Your task to perform on an android device: Open Maps and search for coffee Image 0: 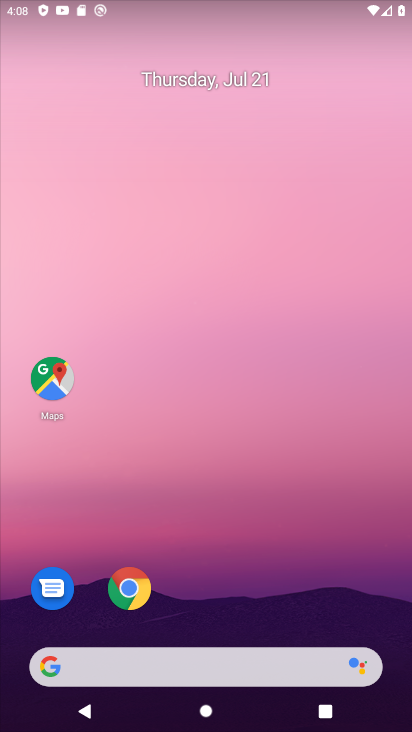
Step 0: drag from (317, 561) to (406, 0)
Your task to perform on an android device: Open Maps and search for coffee Image 1: 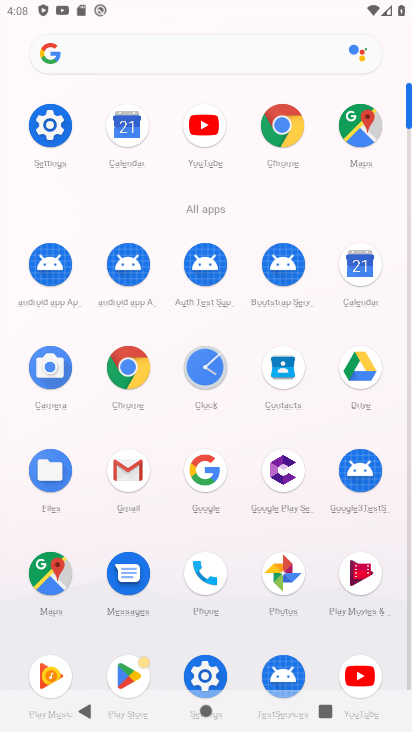
Step 1: click (268, 126)
Your task to perform on an android device: Open Maps and search for coffee Image 2: 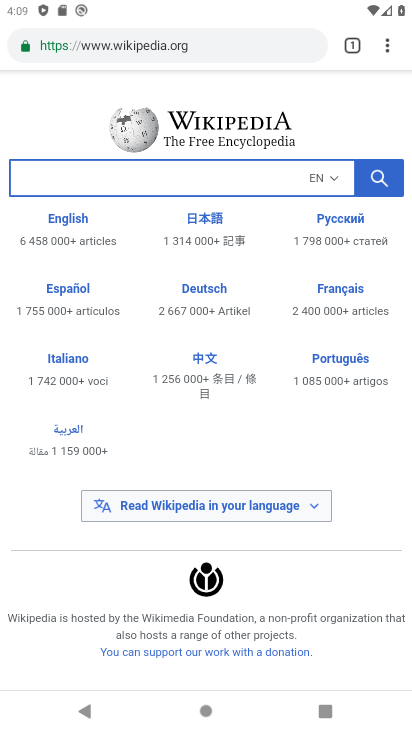
Step 2: press home button
Your task to perform on an android device: Open Maps and search for coffee Image 3: 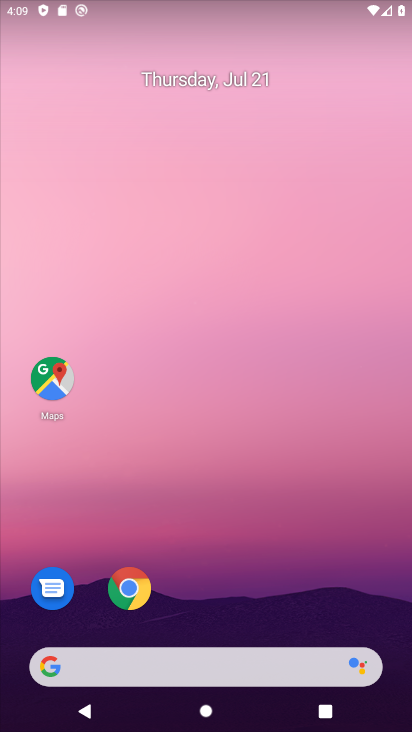
Step 3: drag from (342, 560) to (224, 120)
Your task to perform on an android device: Open Maps and search for coffee Image 4: 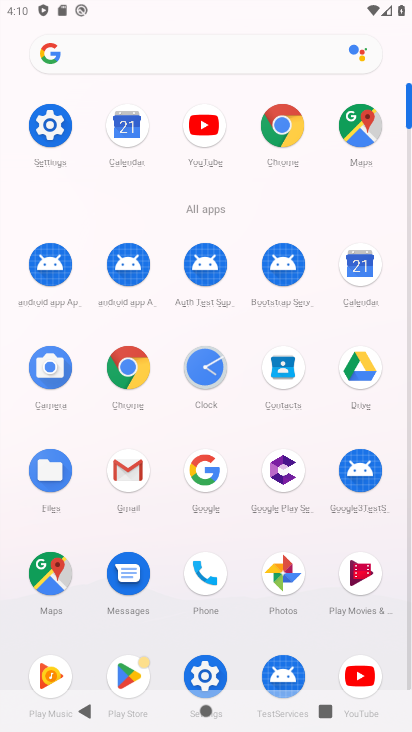
Step 4: click (40, 551)
Your task to perform on an android device: Open Maps and search for coffee Image 5: 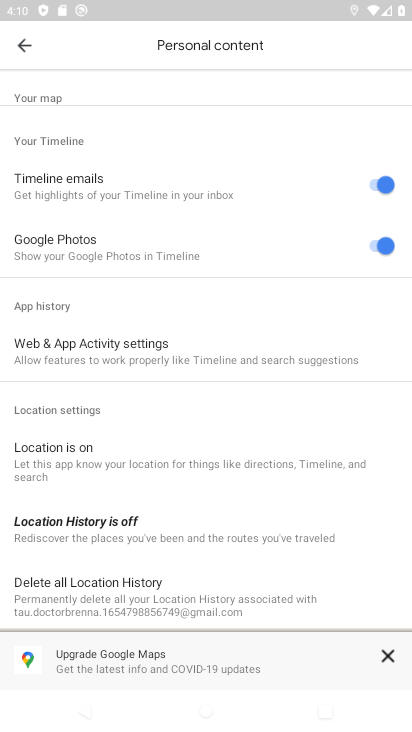
Step 5: click (15, 45)
Your task to perform on an android device: Open Maps and search for coffee Image 6: 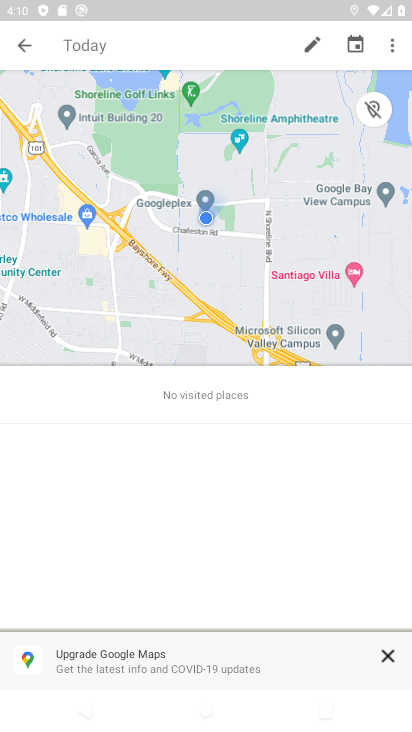
Step 6: click (17, 39)
Your task to perform on an android device: Open Maps and search for coffee Image 7: 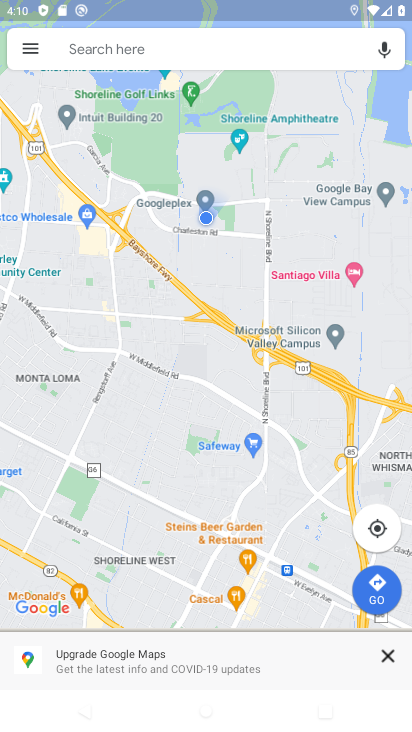
Step 7: click (93, 50)
Your task to perform on an android device: Open Maps and search for coffee Image 8: 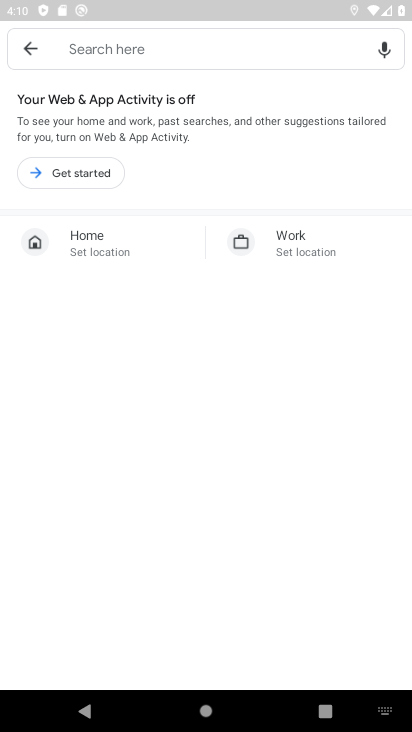
Step 8: type "coffee"
Your task to perform on an android device: Open Maps and search for coffee Image 9: 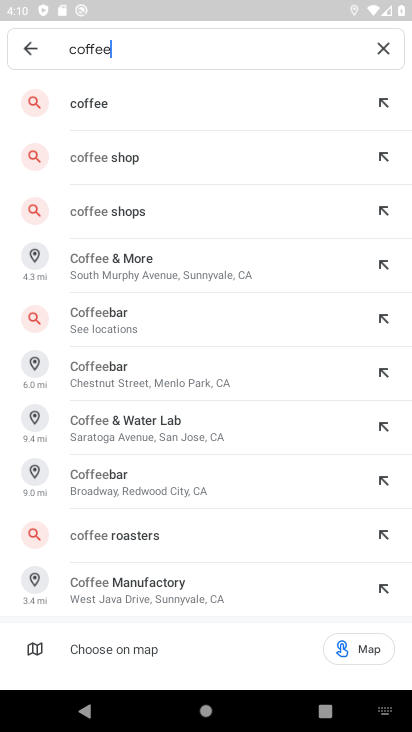
Step 9: click (82, 101)
Your task to perform on an android device: Open Maps and search for coffee Image 10: 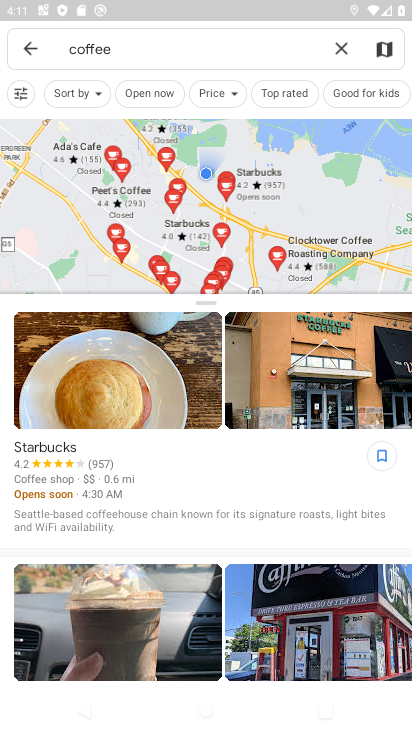
Step 10: task complete